Your task to perform on an android device: turn off location history Image 0: 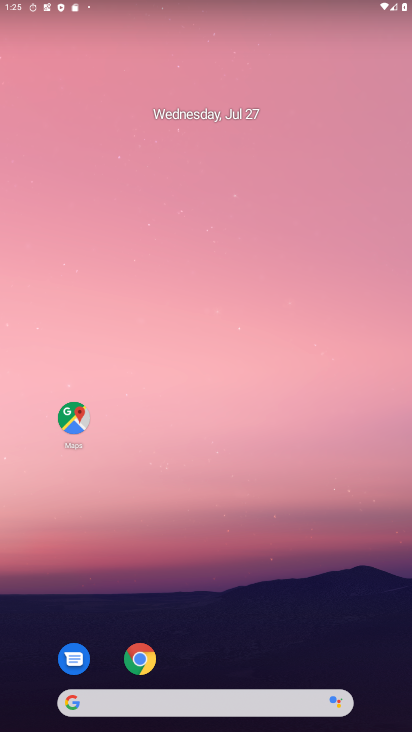
Step 0: press home button
Your task to perform on an android device: turn off location history Image 1: 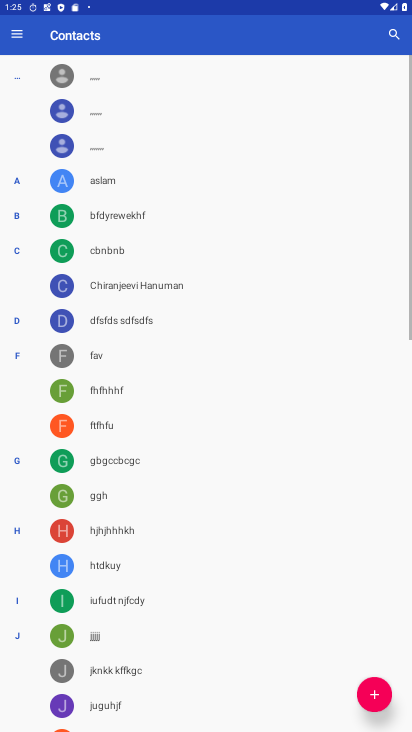
Step 1: drag from (220, 645) to (235, 47)
Your task to perform on an android device: turn off location history Image 2: 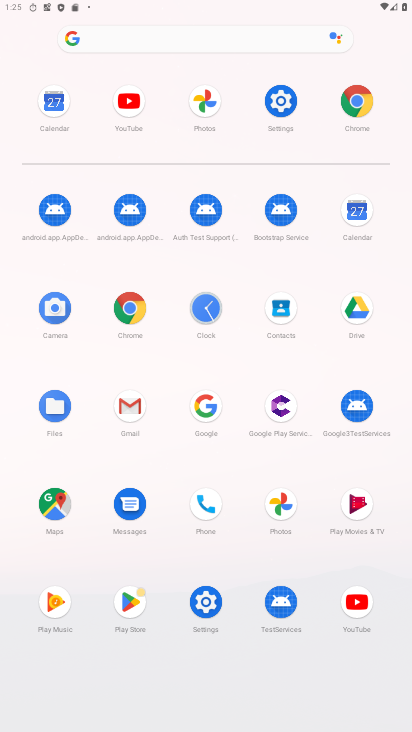
Step 2: click (204, 596)
Your task to perform on an android device: turn off location history Image 3: 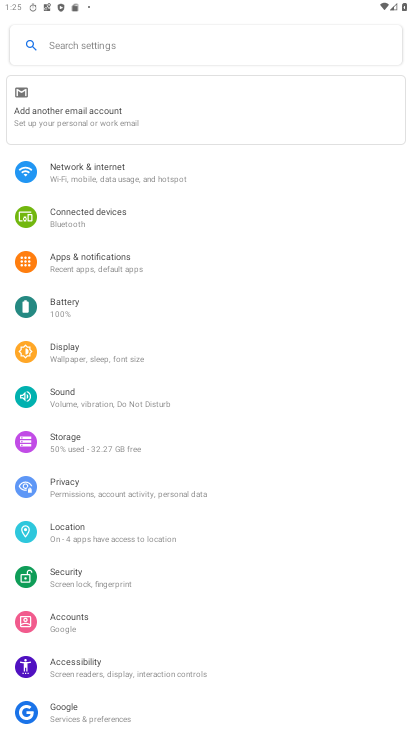
Step 3: click (93, 525)
Your task to perform on an android device: turn off location history Image 4: 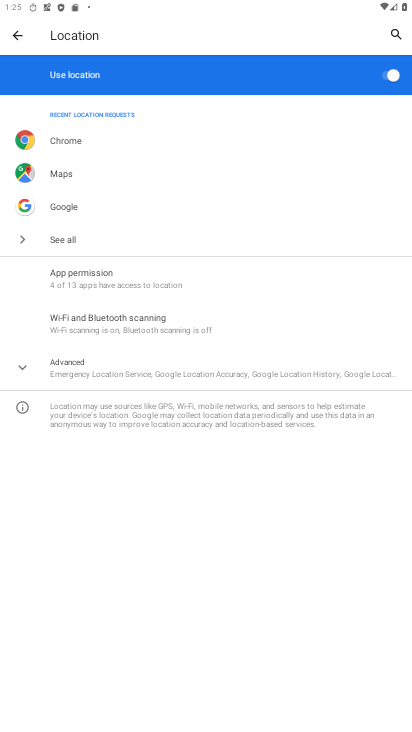
Step 4: click (63, 365)
Your task to perform on an android device: turn off location history Image 5: 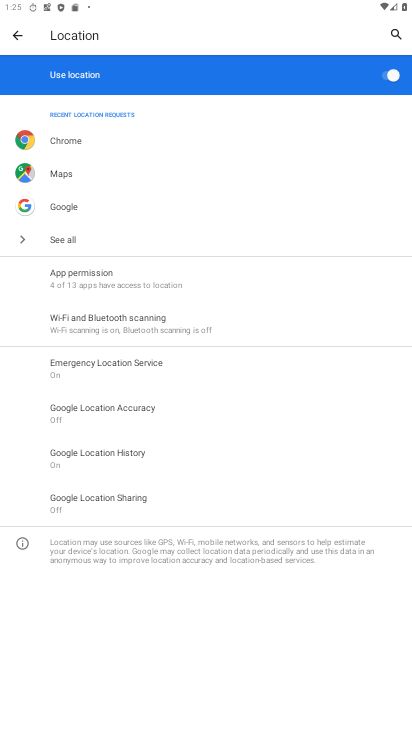
Step 5: click (122, 455)
Your task to perform on an android device: turn off location history Image 6: 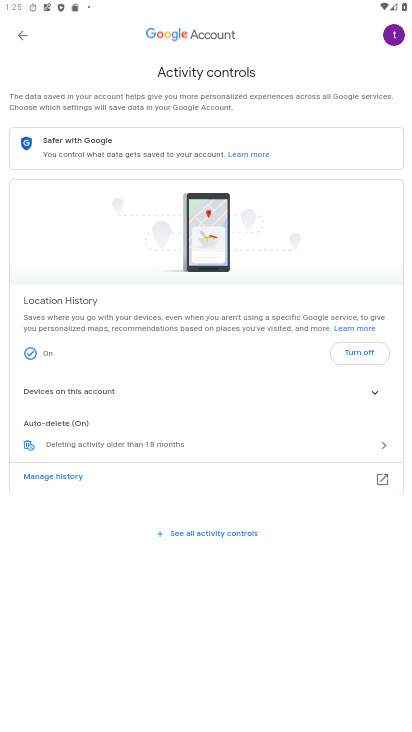
Step 6: click (345, 356)
Your task to perform on an android device: turn off location history Image 7: 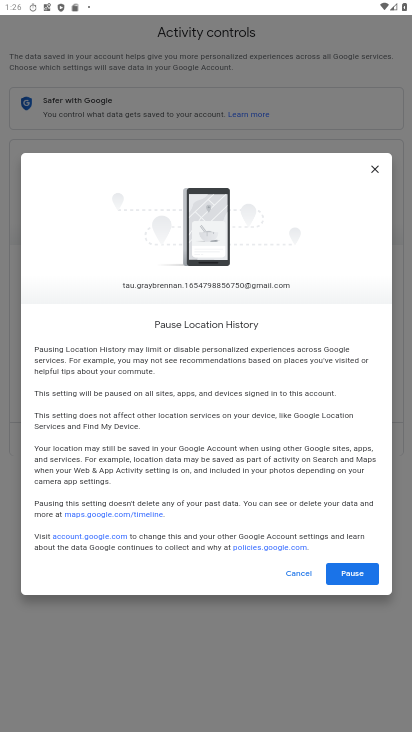
Step 7: click (356, 573)
Your task to perform on an android device: turn off location history Image 8: 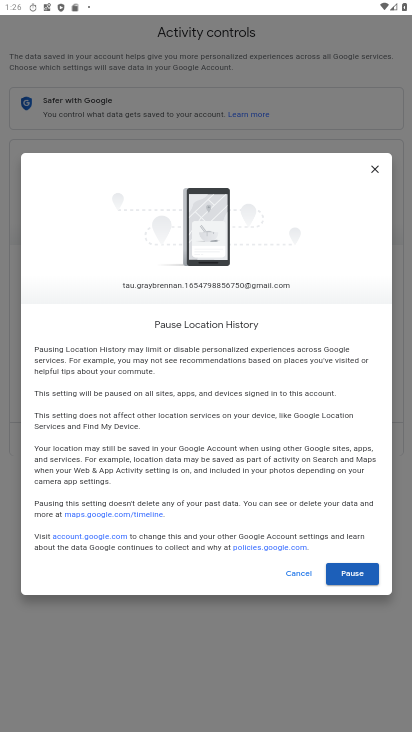
Step 8: click (348, 571)
Your task to perform on an android device: turn off location history Image 9: 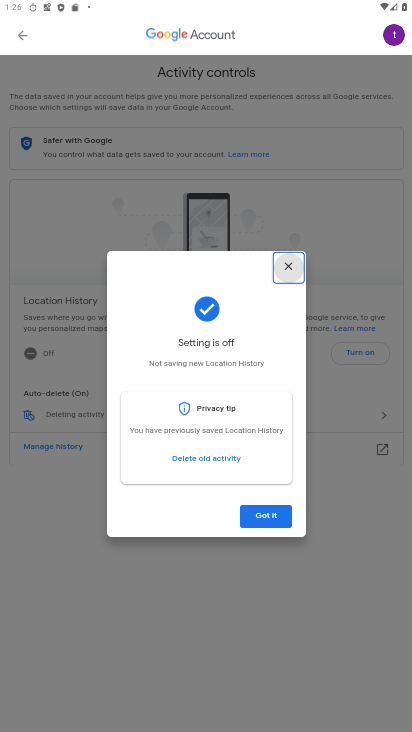
Step 9: task complete